Your task to perform on an android device: open wifi settings Image 0: 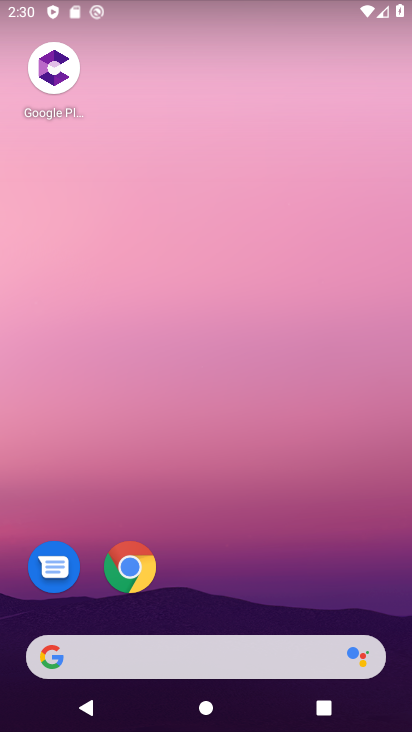
Step 0: drag from (390, 616) to (301, 117)
Your task to perform on an android device: open wifi settings Image 1: 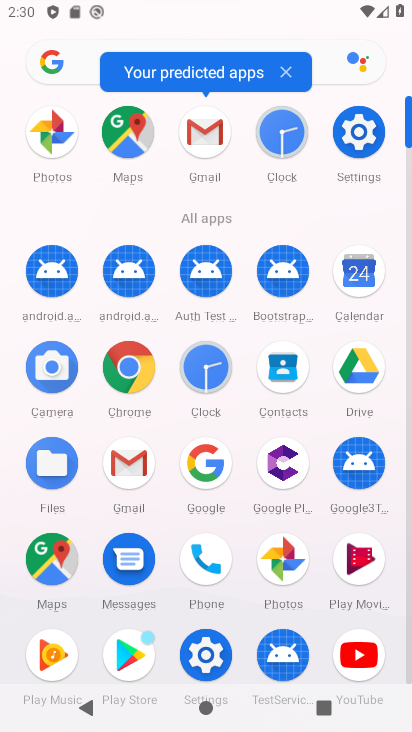
Step 1: click (188, 646)
Your task to perform on an android device: open wifi settings Image 2: 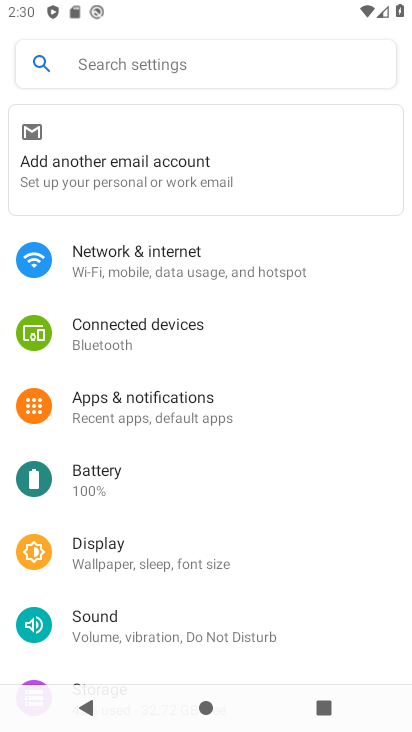
Step 2: click (141, 250)
Your task to perform on an android device: open wifi settings Image 3: 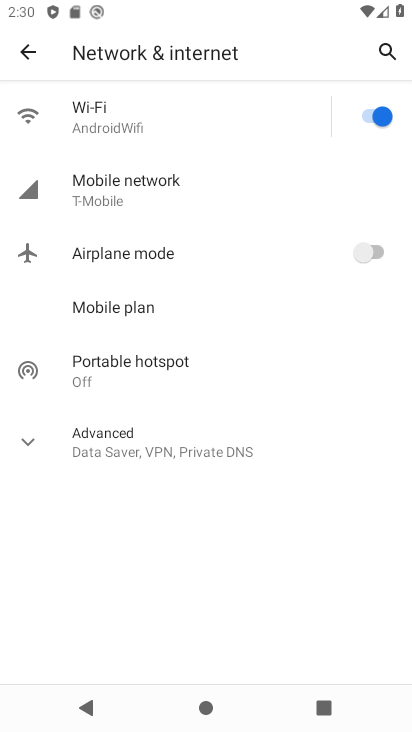
Step 3: click (169, 134)
Your task to perform on an android device: open wifi settings Image 4: 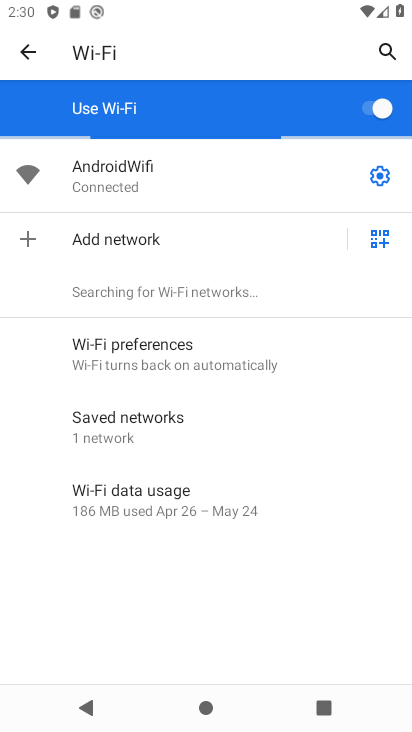
Step 4: task complete